Your task to perform on an android device: toggle translation in the chrome app Image 0: 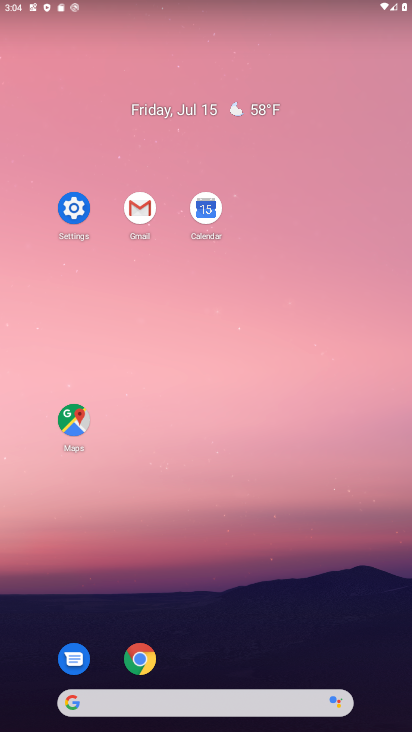
Step 0: click (146, 656)
Your task to perform on an android device: toggle translation in the chrome app Image 1: 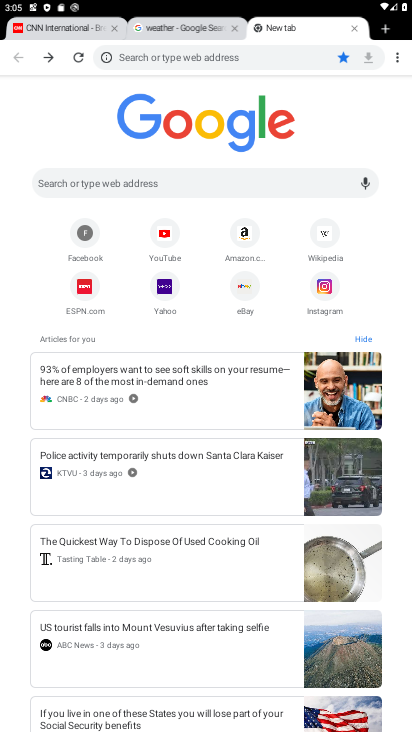
Step 1: click (402, 52)
Your task to perform on an android device: toggle translation in the chrome app Image 2: 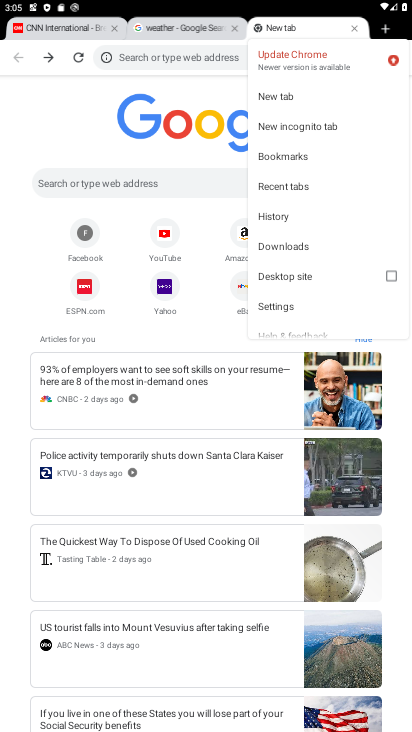
Step 2: click (285, 305)
Your task to perform on an android device: toggle translation in the chrome app Image 3: 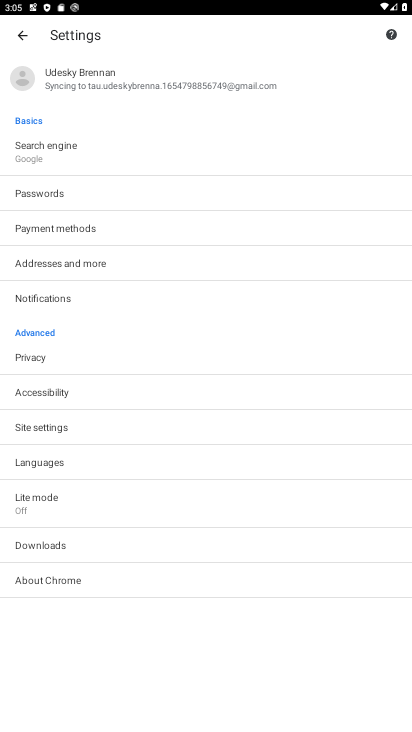
Step 3: click (114, 473)
Your task to perform on an android device: toggle translation in the chrome app Image 4: 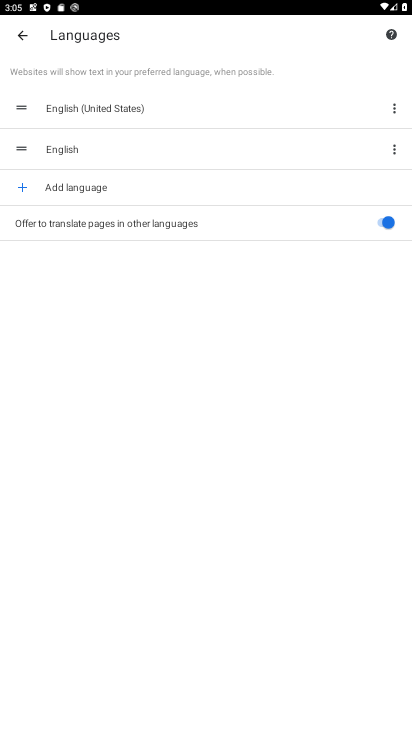
Step 4: click (382, 214)
Your task to perform on an android device: toggle translation in the chrome app Image 5: 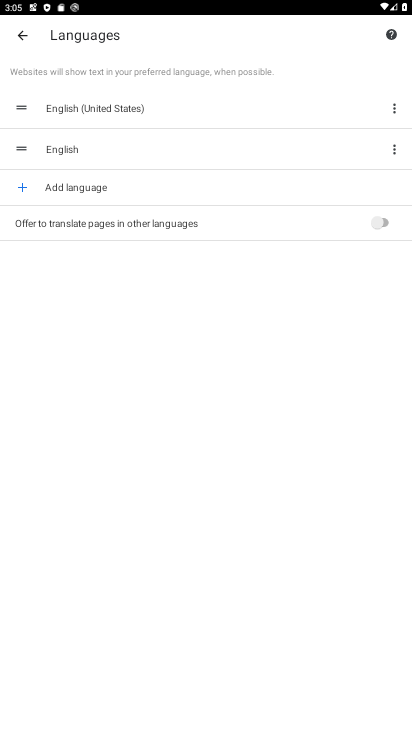
Step 5: task complete